Your task to perform on an android device: Is it going to rain this weekend? Image 0: 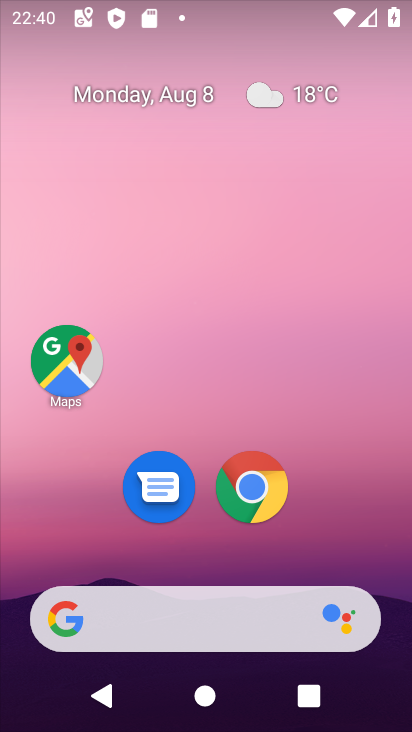
Step 0: drag from (201, 535) to (192, 65)
Your task to perform on an android device: Is it going to rain this weekend? Image 1: 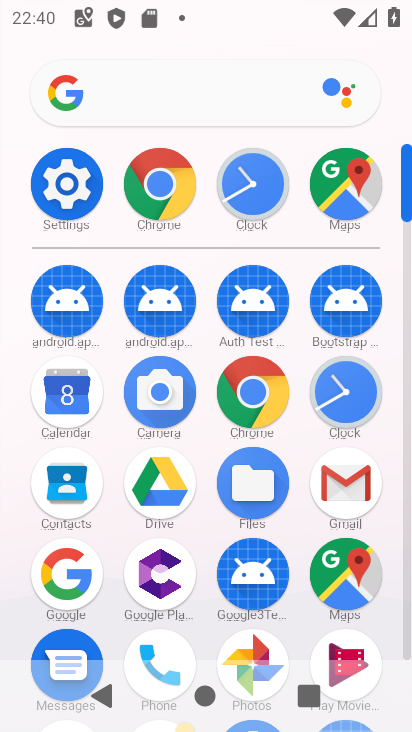
Step 1: click (62, 561)
Your task to perform on an android device: Is it going to rain this weekend? Image 2: 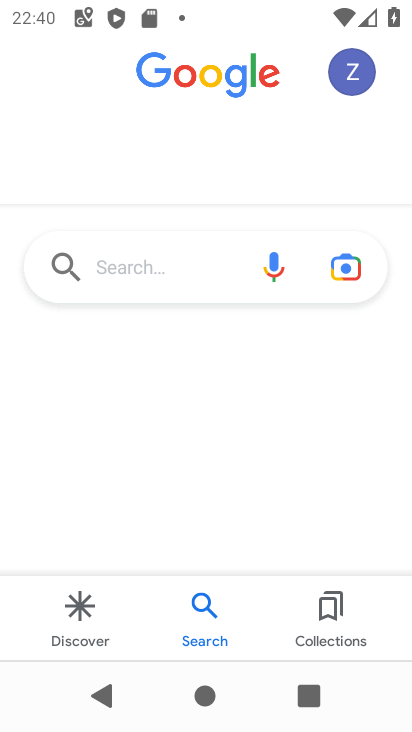
Step 2: click (206, 277)
Your task to perform on an android device: Is it going to rain this weekend? Image 3: 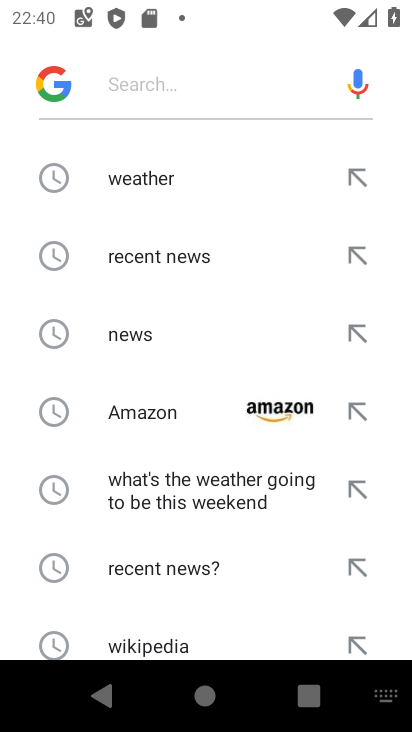
Step 3: click (138, 179)
Your task to perform on an android device: Is it going to rain this weekend? Image 4: 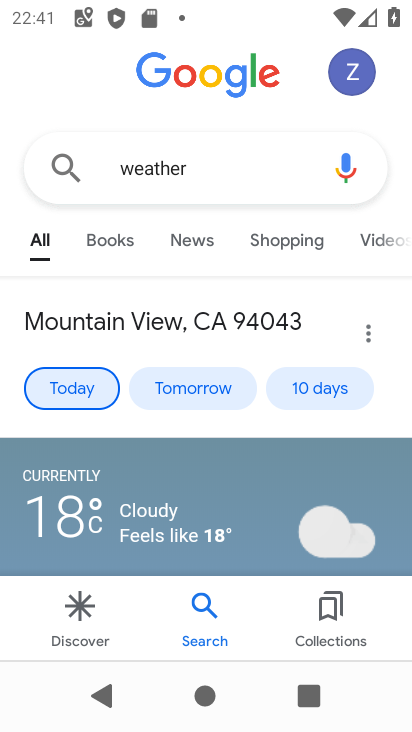
Step 4: click (317, 389)
Your task to perform on an android device: Is it going to rain this weekend? Image 5: 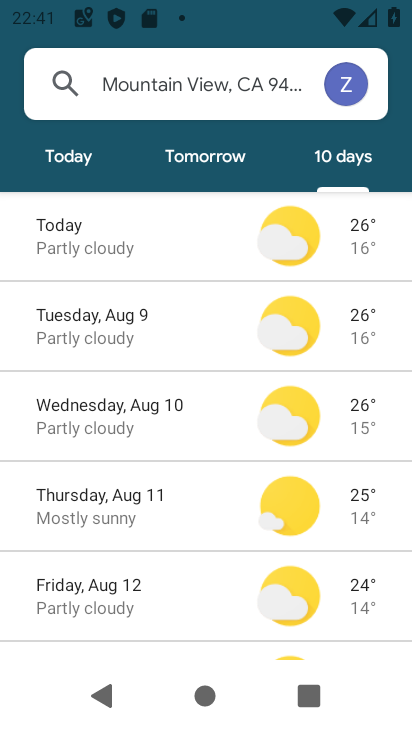
Step 5: task complete